Your task to perform on an android device: Open Wikipedia Image 0: 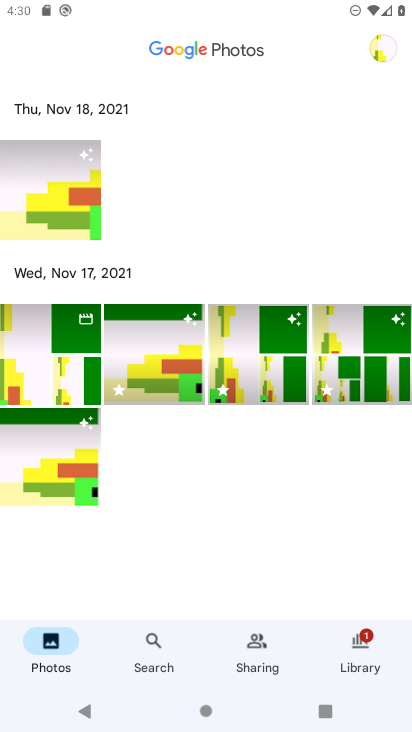
Step 0: press home button
Your task to perform on an android device: Open Wikipedia Image 1: 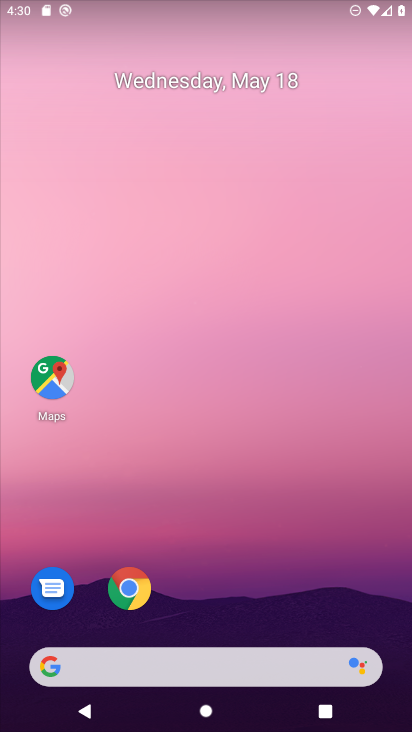
Step 1: click (123, 595)
Your task to perform on an android device: Open Wikipedia Image 2: 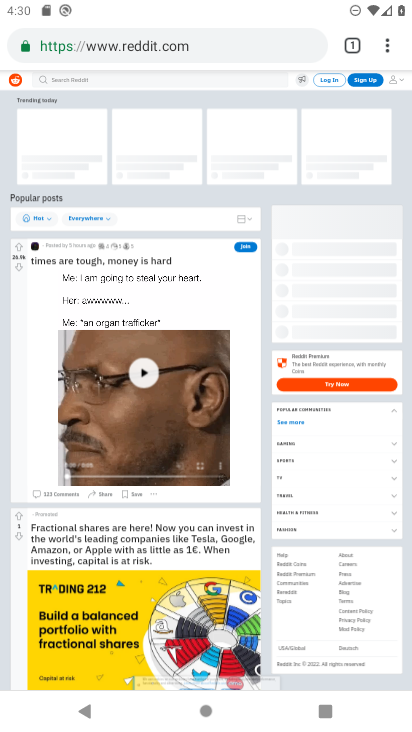
Step 2: click (253, 44)
Your task to perform on an android device: Open Wikipedia Image 3: 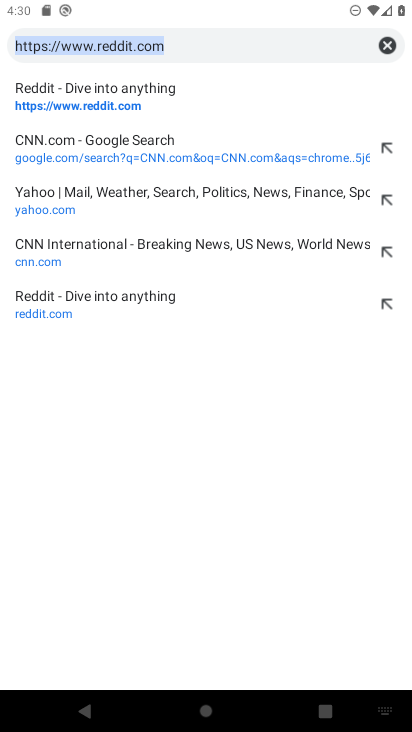
Step 3: type ""
Your task to perform on an android device: Open Wikipedia Image 4: 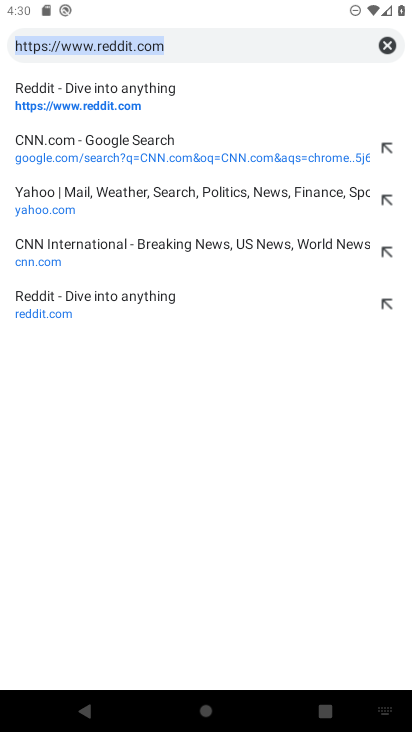
Step 4: type "wikipedia.com"
Your task to perform on an android device: Open Wikipedia Image 5: 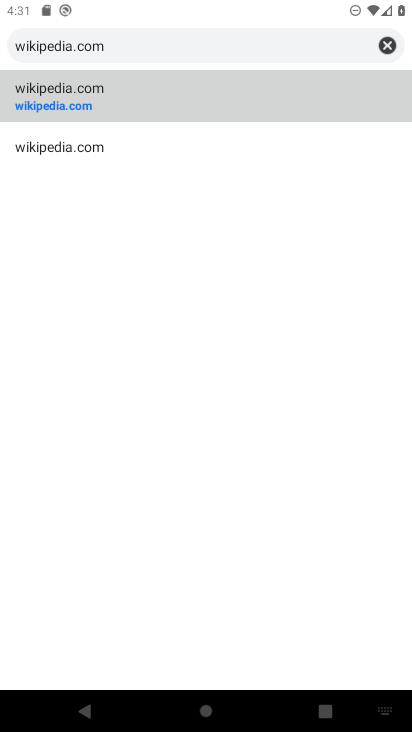
Step 5: click (202, 109)
Your task to perform on an android device: Open Wikipedia Image 6: 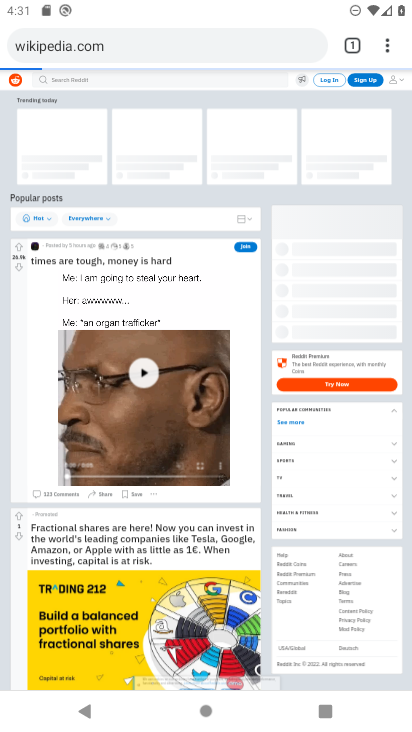
Step 6: task complete